Your task to perform on an android device: change notifications settings Image 0: 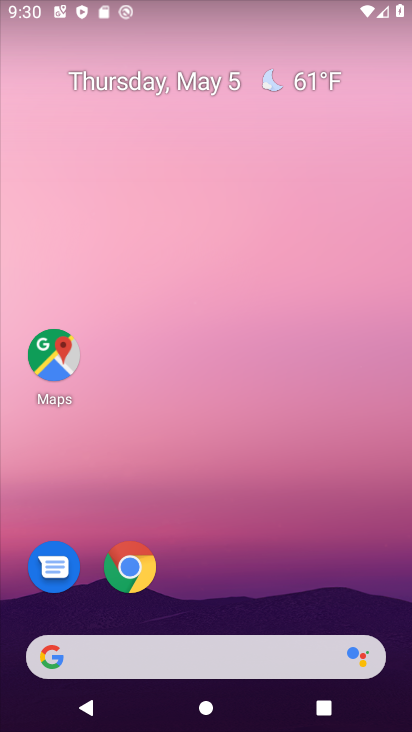
Step 0: drag from (292, 611) to (297, 52)
Your task to perform on an android device: change notifications settings Image 1: 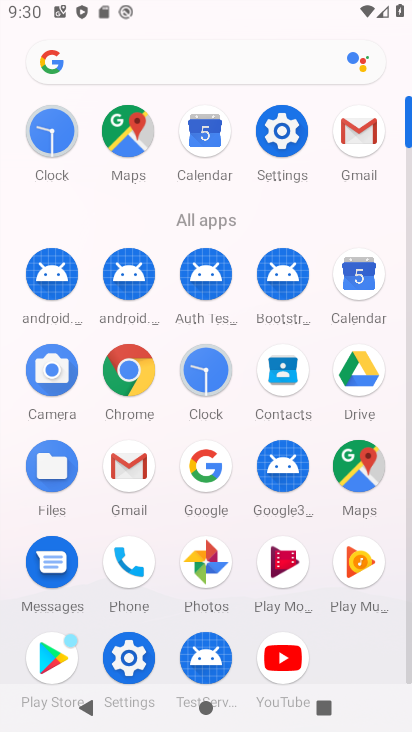
Step 1: click (285, 140)
Your task to perform on an android device: change notifications settings Image 2: 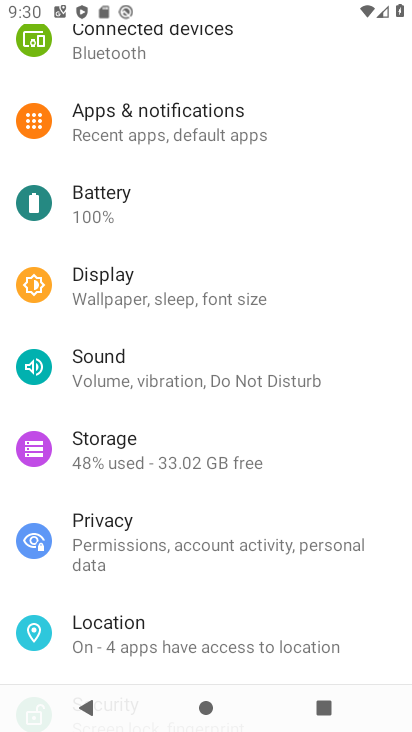
Step 2: click (175, 111)
Your task to perform on an android device: change notifications settings Image 3: 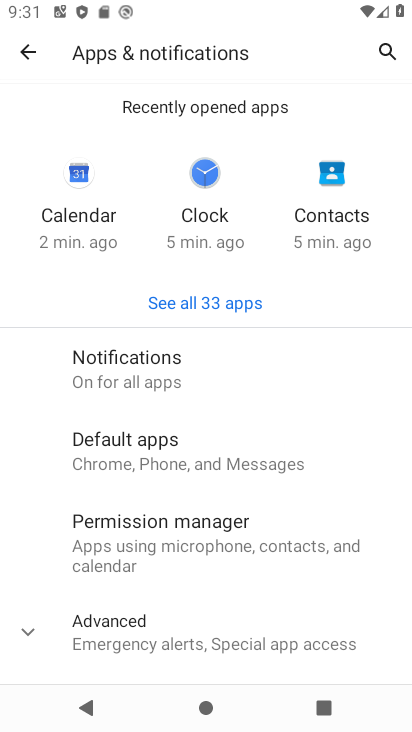
Step 3: drag from (288, 599) to (256, 341)
Your task to perform on an android device: change notifications settings Image 4: 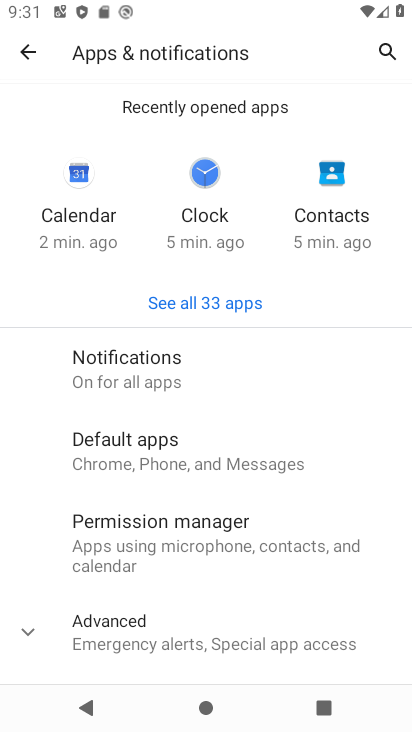
Step 4: click (130, 371)
Your task to perform on an android device: change notifications settings Image 5: 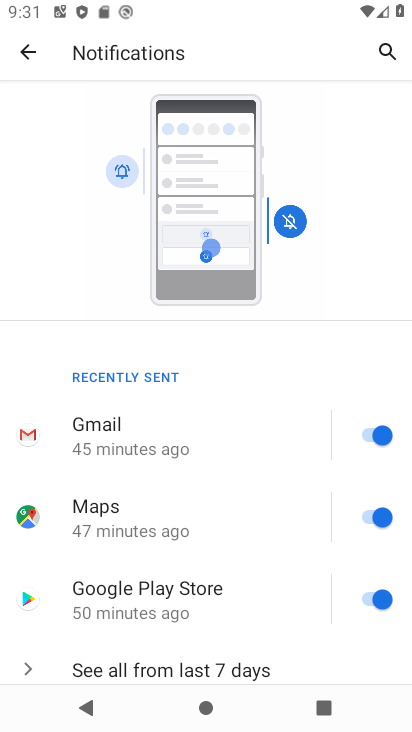
Step 5: click (371, 594)
Your task to perform on an android device: change notifications settings Image 6: 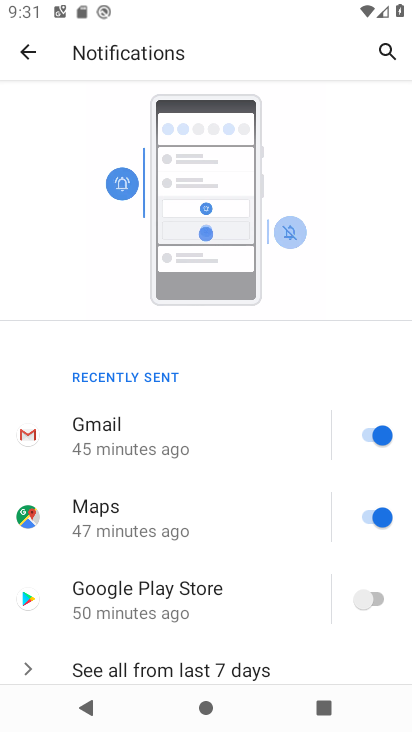
Step 6: task complete